Your task to perform on an android device: turn off priority inbox in the gmail app Image 0: 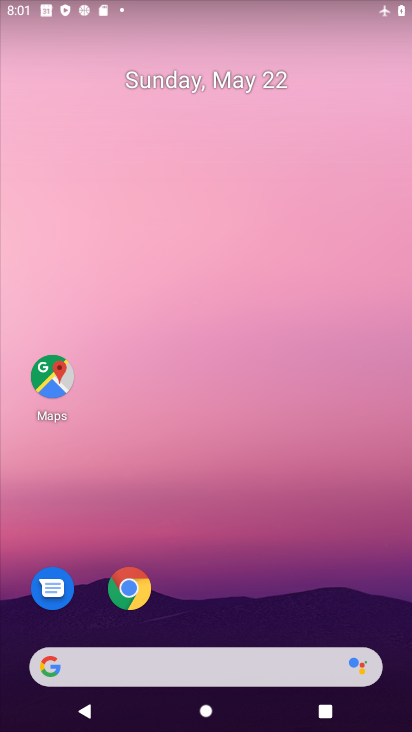
Step 0: drag from (259, 596) to (364, 138)
Your task to perform on an android device: turn off priority inbox in the gmail app Image 1: 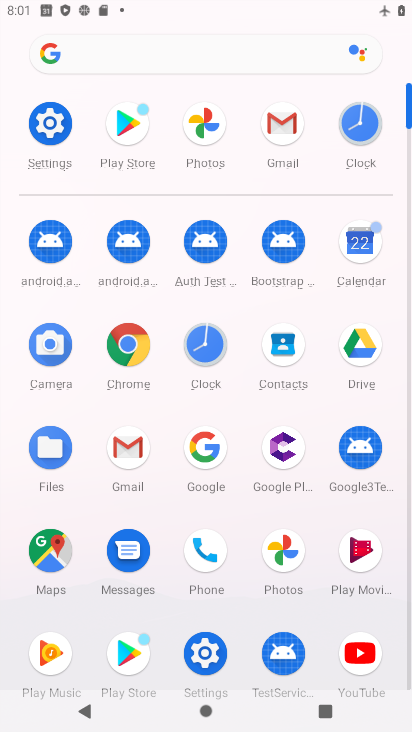
Step 1: click (133, 454)
Your task to perform on an android device: turn off priority inbox in the gmail app Image 2: 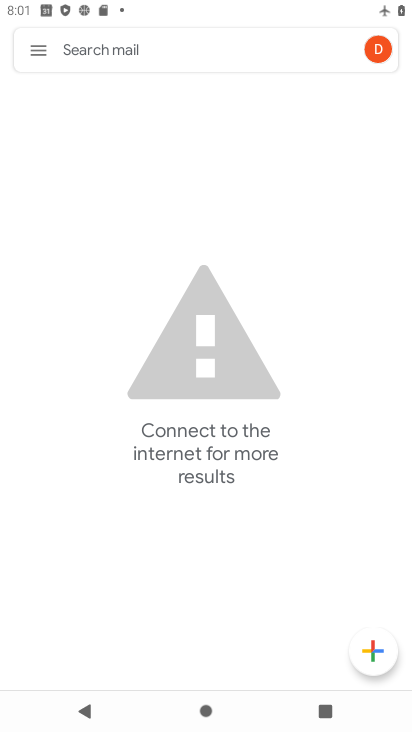
Step 2: click (40, 47)
Your task to perform on an android device: turn off priority inbox in the gmail app Image 3: 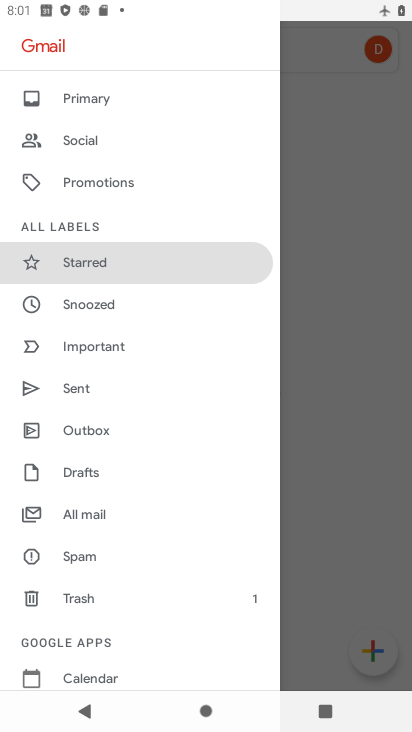
Step 3: drag from (157, 559) to (129, 141)
Your task to perform on an android device: turn off priority inbox in the gmail app Image 4: 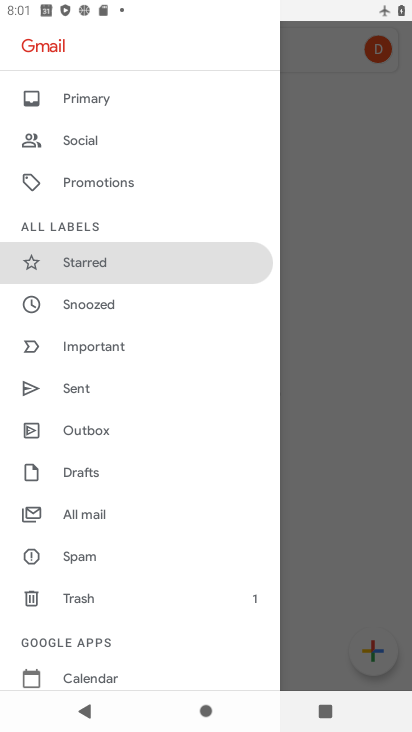
Step 4: drag from (150, 613) to (150, 200)
Your task to perform on an android device: turn off priority inbox in the gmail app Image 5: 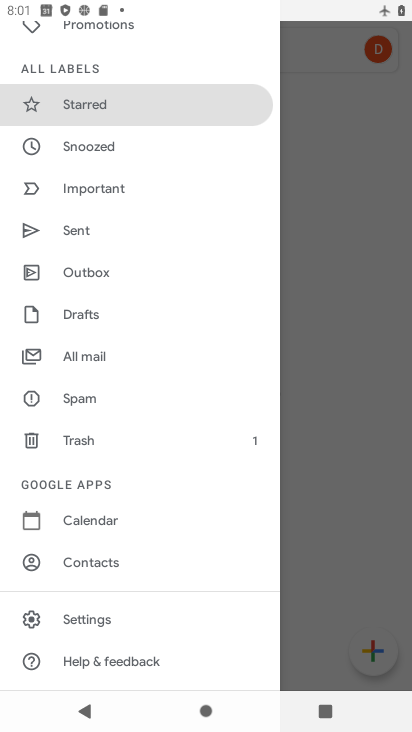
Step 5: click (76, 610)
Your task to perform on an android device: turn off priority inbox in the gmail app Image 6: 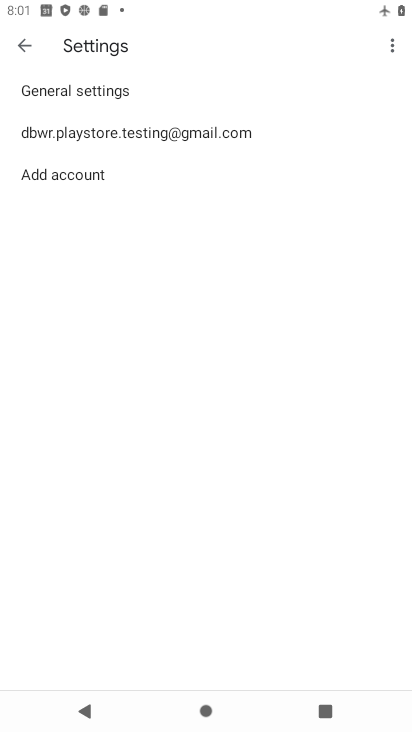
Step 6: click (84, 136)
Your task to perform on an android device: turn off priority inbox in the gmail app Image 7: 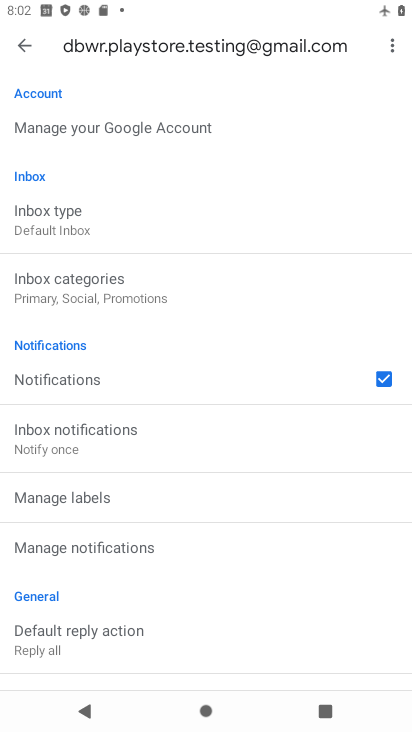
Step 7: click (47, 217)
Your task to perform on an android device: turn off priority inbox in the gmail app Image 8: 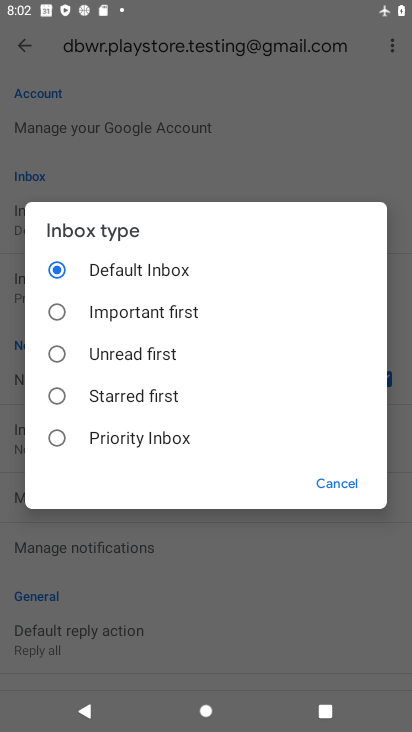
Step 8: task complete